Your task to perform on an android device: install app "Reddit" Image 0: 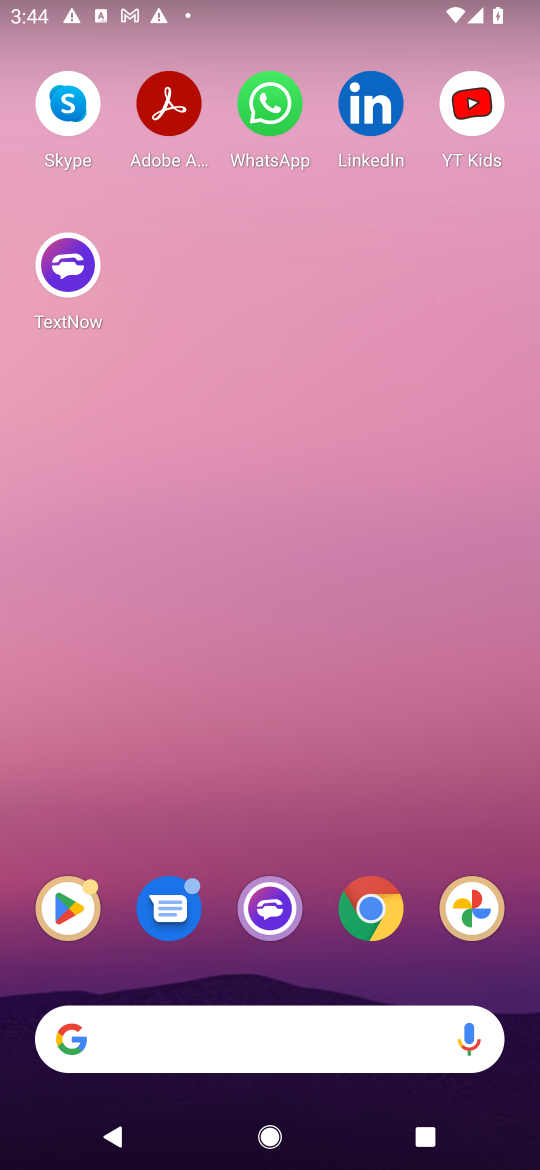
Step 0: click (70, 930)
Your task to perform on an android device: install app "Reddit" Image 1: 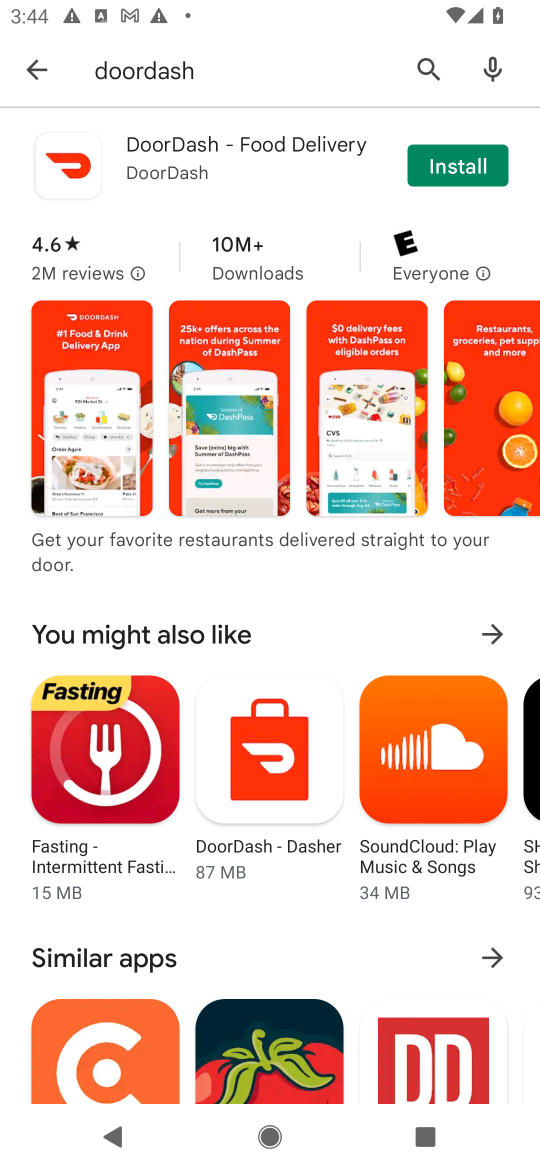
Step 1: click (438, 71)
Your task to perform on an android device: install app "Reddit" Image 2: 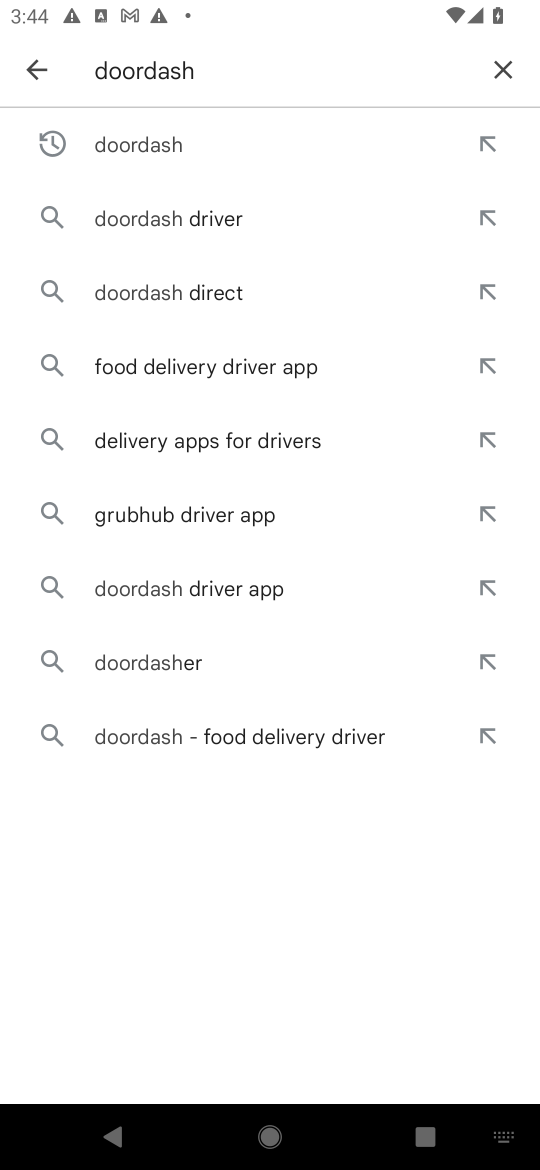
Step 2: click (512, 75)
Your task to perform on an android device: install app "Reddit" Image 3: 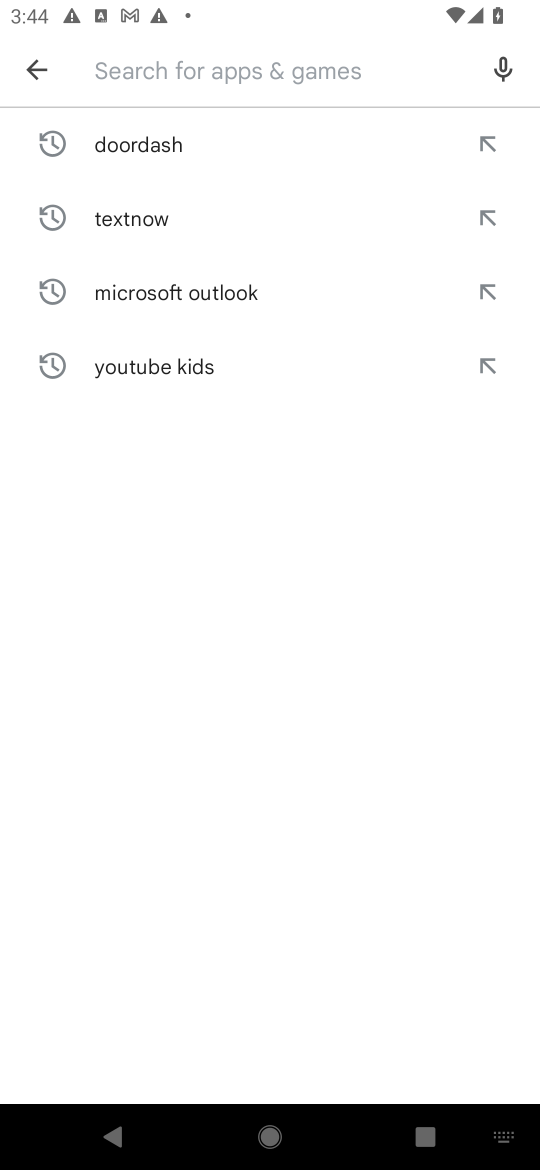
Step 3: type "reddit"
Your task to perform on an android device: install app "Reddit" Image 4: 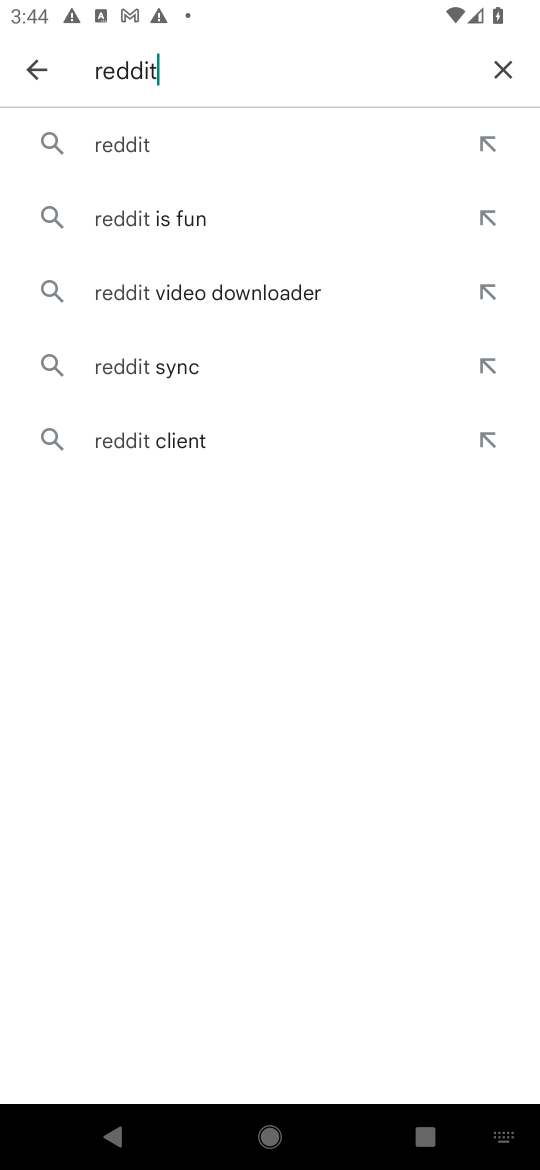
Step 4: click (254, 131)
Your task to perform on an android device: install app "Reddit" Image 5: 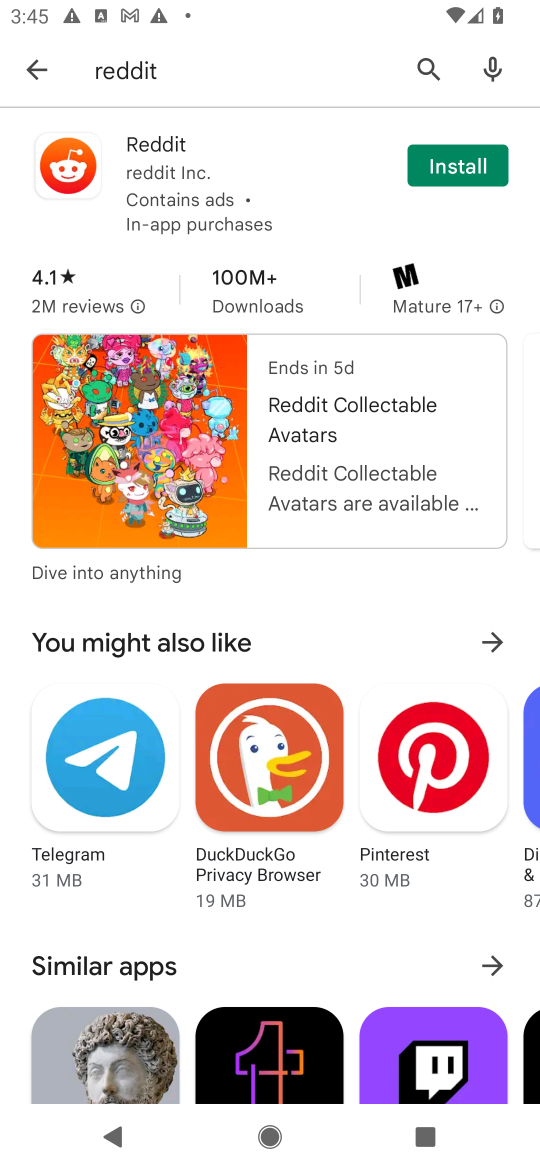
Step 5: click (446, 154)
Your task to perform on an android device: install app "Reddit" Image 6: 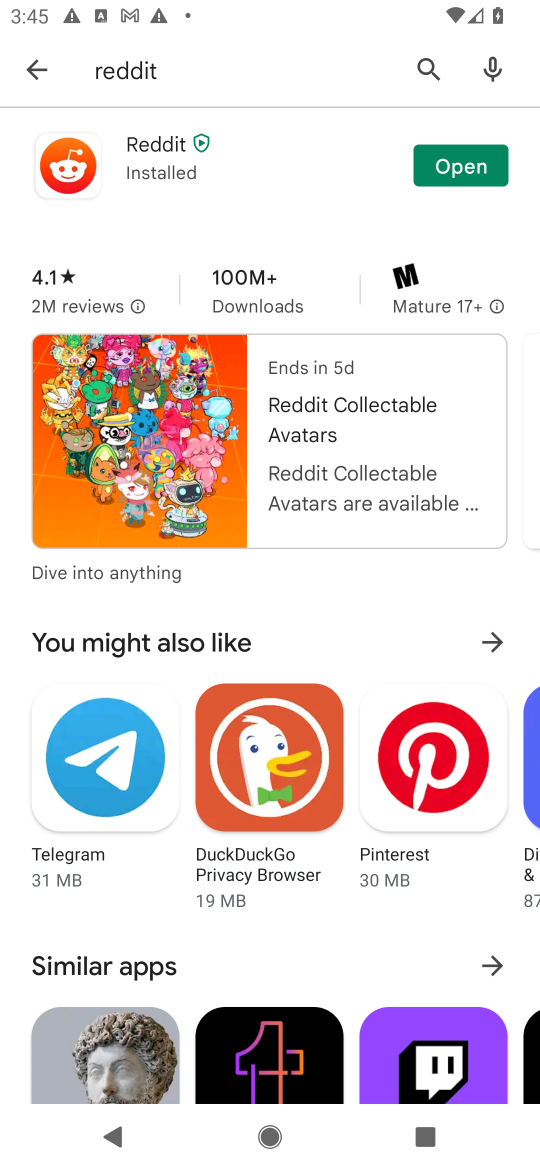
Step 6: task complete